Your task to perform on an android device: turn off picture-in-picture Image 0: 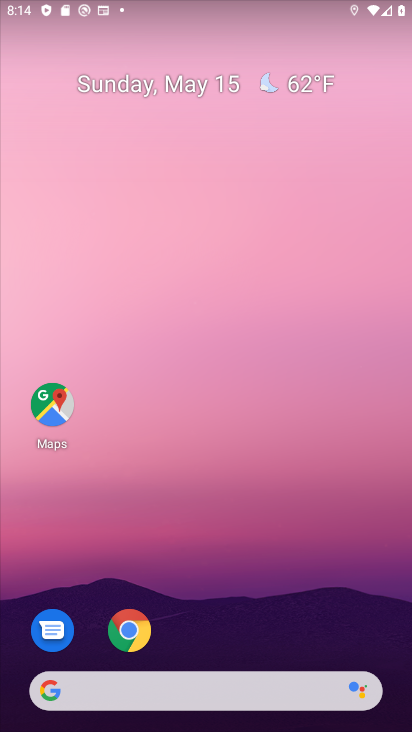
Step 0: click (143, 627)
Your task to perform on an android device: turn off picture-in-picture Image 1: 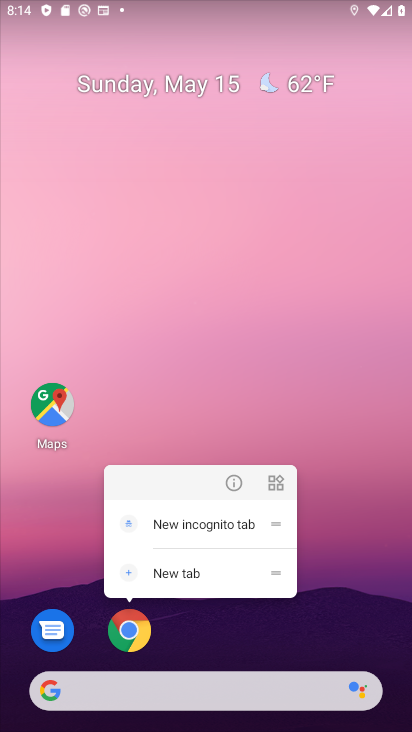
Step 1: click (236, 481)
Your task to perform on an android device: turn off picture-in-picture Image 2: 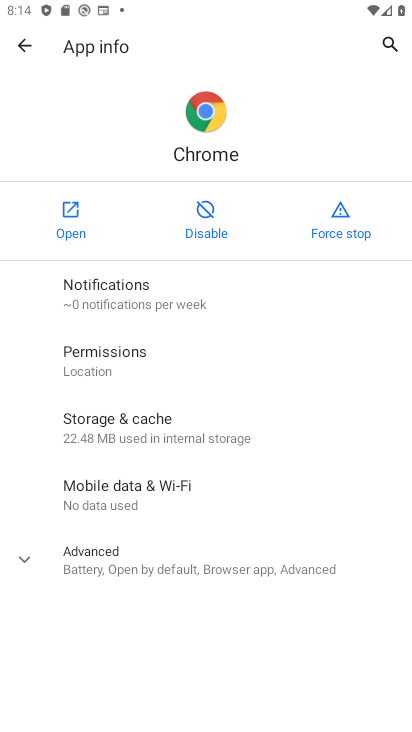
Step 2: click (41, 557)
Your task to perform on an android device: turn off picture-in-picture Image 3: 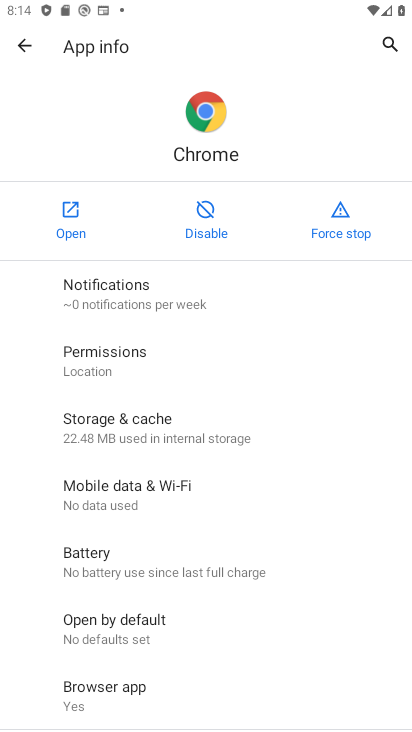
Step 3: drag from (162, 572) to (191, 366)
Your task to perform on an android device: turn off picture-in-picture Image 4: 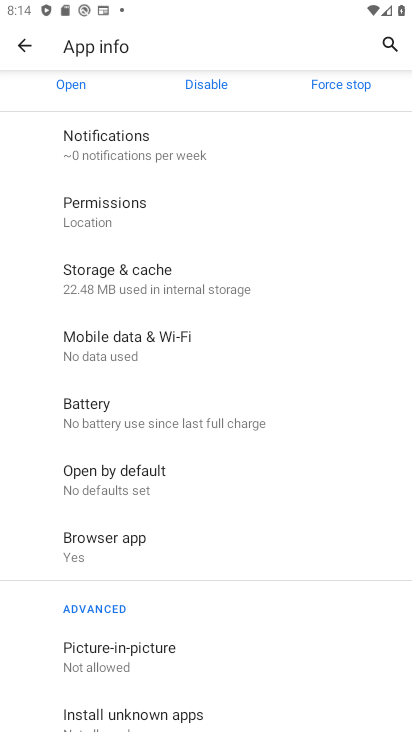
Step 4: click (137, 653)
Your task to perform on an android device: turn off picture-in-picture Image 5: 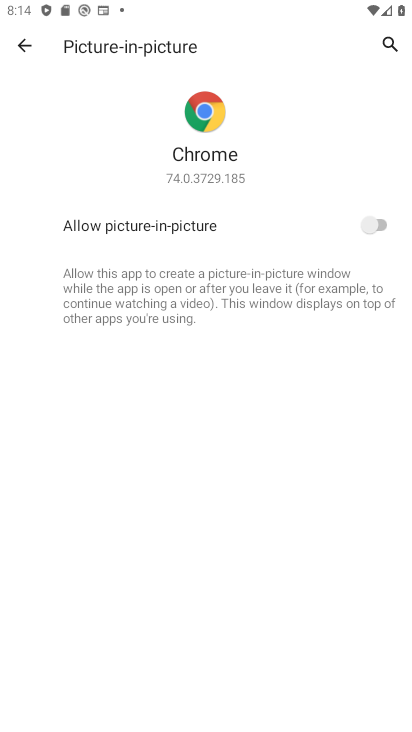
Step 5: task complete